Your task to perform on an android device: change timer sound Image 0: 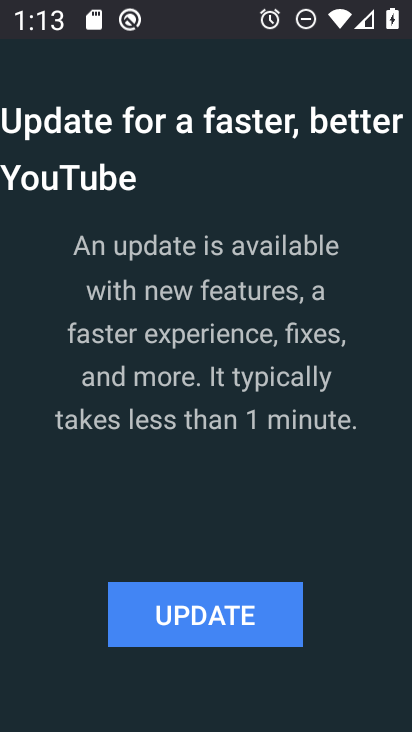
Step 0: press back button
Your task to perform on an android device: change timer sound Image 1: 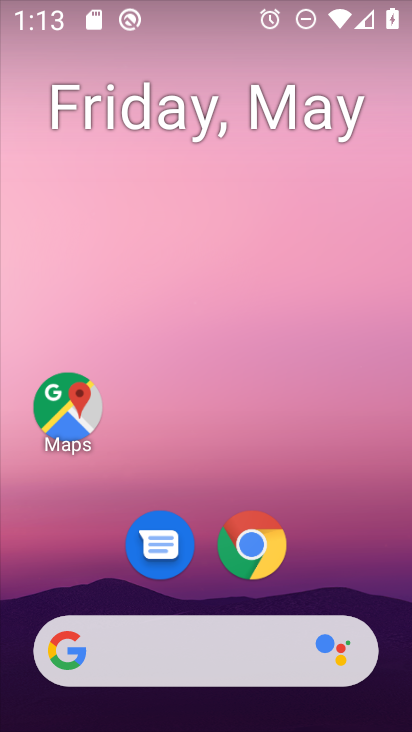
Step 1: drag from (335, 576) to (309, 164)
Your task to perform on an android device: change timer sound Image 2: 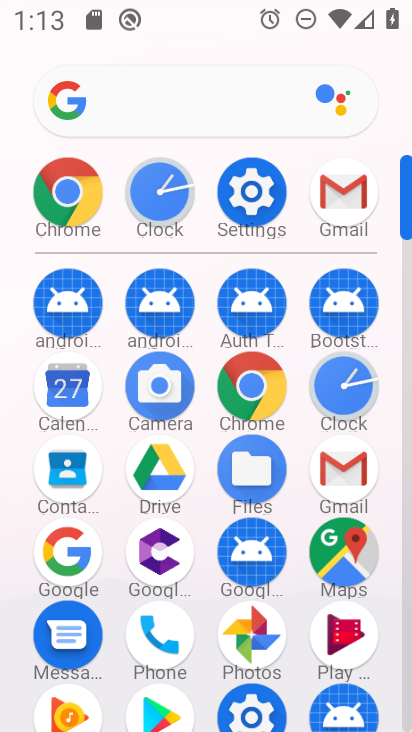
Step 2: click (349, 385)
Your task to perform on an android device: change timer sound Image 3: 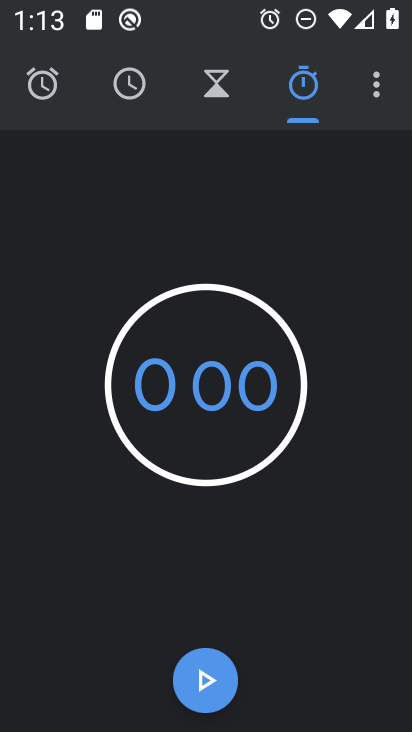
Step 3: click (362, 88)
Your task to perform on an android device: change timer sound Image 4: 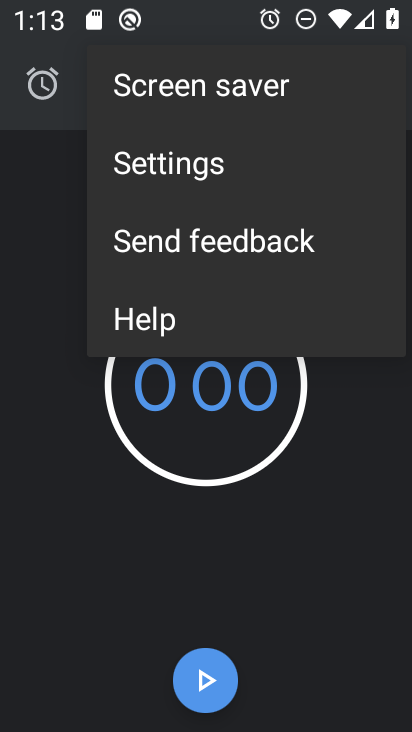
Step 4: click (226, 185)
Your task to perform on an android device: change timer sound Image 5: 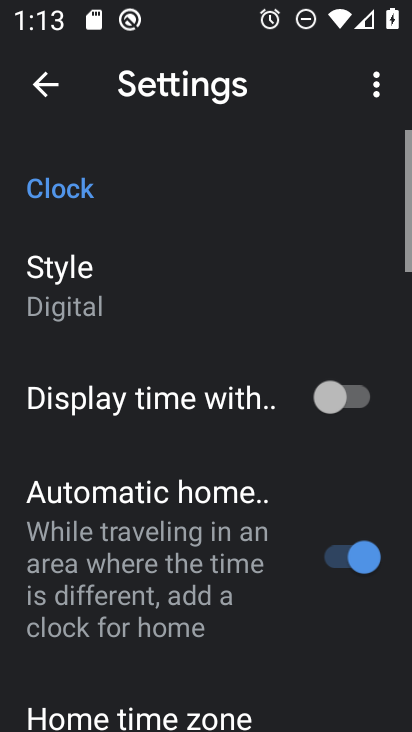
Step 5: drag from (200, 581) to (213, 138)
Your task to perform on an android device: change timer sound Image 6: 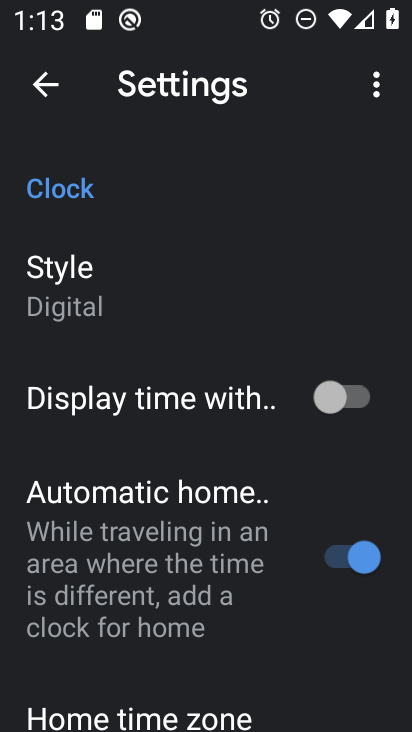
Step 6: drag from (203, 629) to (203, 277)
Your task to perform on an android device: change timer sound Image 7: 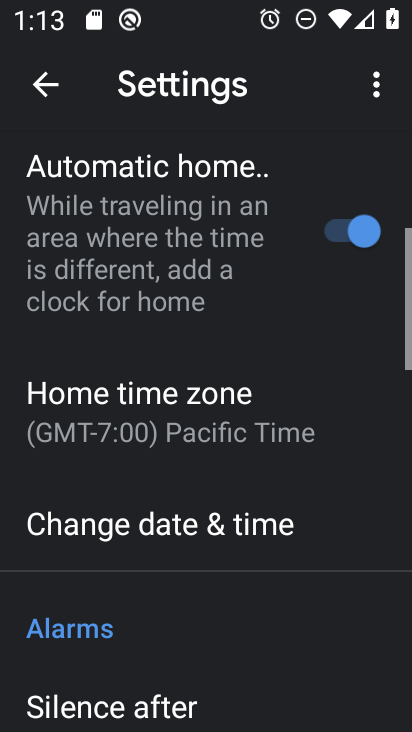
Step 7: drag from (236, 572) to (262, 263)
Your task to perform on an android device: change timer sound Image 8: 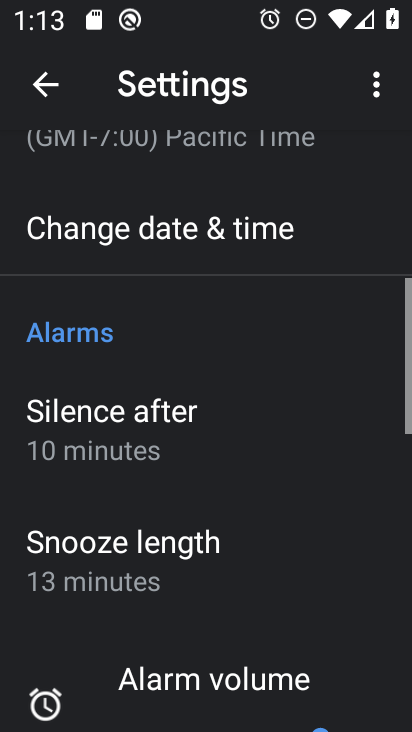
Step 8: drag from (261, 581) to (247, 237)
Your task to perform on an android device: change timer sound Image 9: 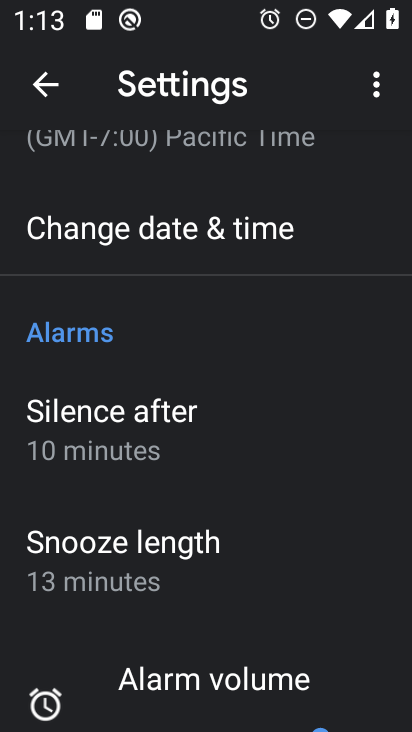
Step 9: drag from (197, 616) to (234, 264)
Your task to perform on an android device: change timer sound Image 10: 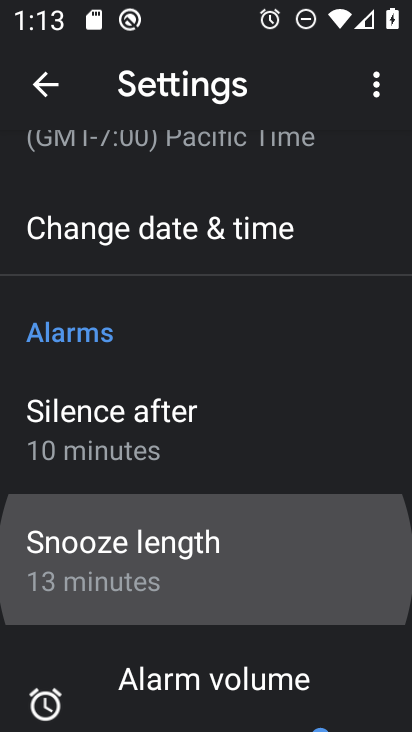
Step 10: drag from (225, 583) to (256, 236)
Your task to perform on an android device: change timer sound Image 11: 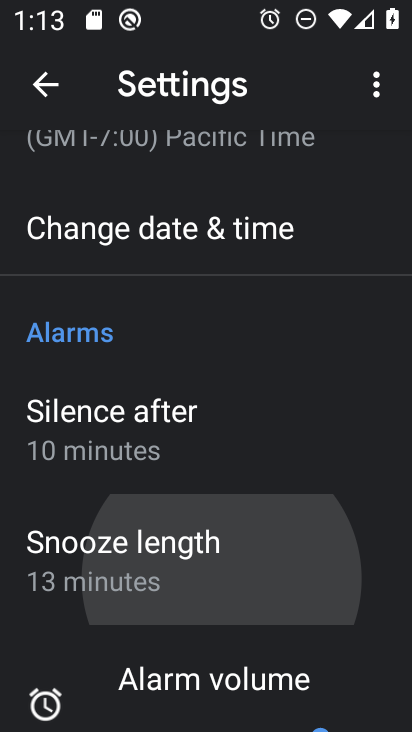
Step 11: drag from (212, 589) to (223, 263)
Your task to perform on an android device: change timer sound Image 12: 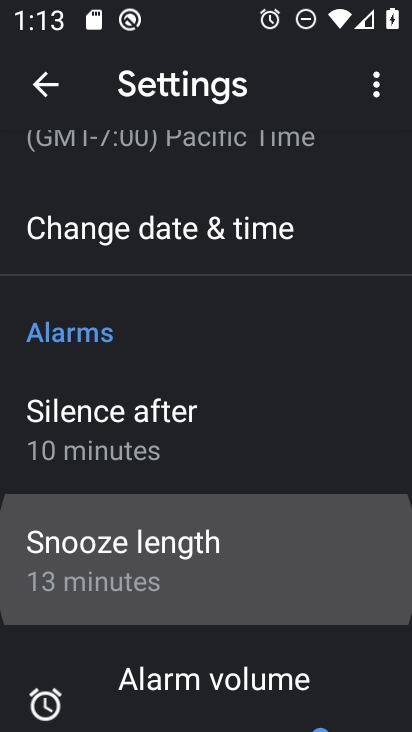
Step 12: drag from (169, 655) to (184, 259)
Your task to perform on an android device: change timer sound Image 13: 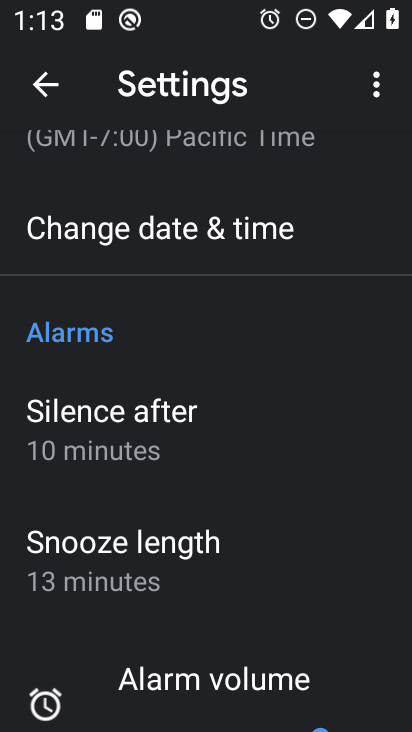
Step 13: drag from (139, 594) to (169, 223)
Your task to perform on an android device: change timer sound Image 14: 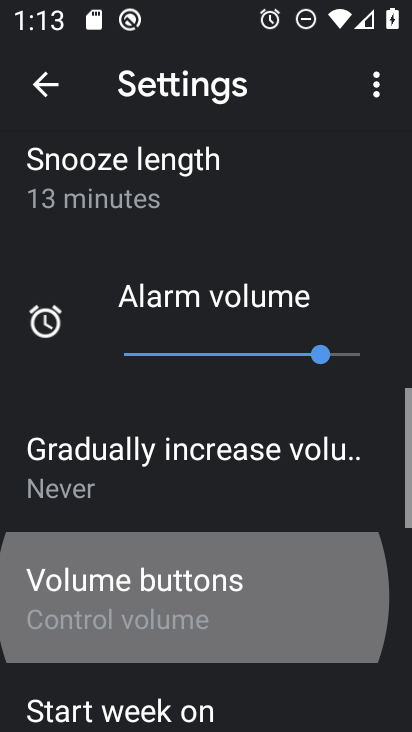
Step 14: drag from (135, 597) to (182, 226)
Your task to perform on an android device: change timer sound Image 15: 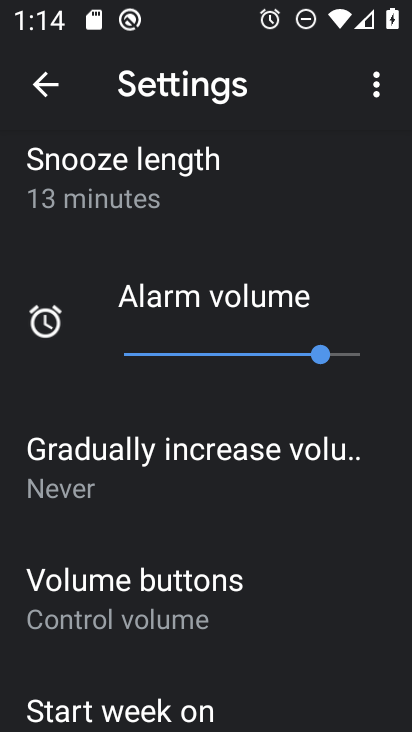
Step 15: drag from (240, 607) to (269, 209)
Your task to perform on an android device: change timer sound Image 16: 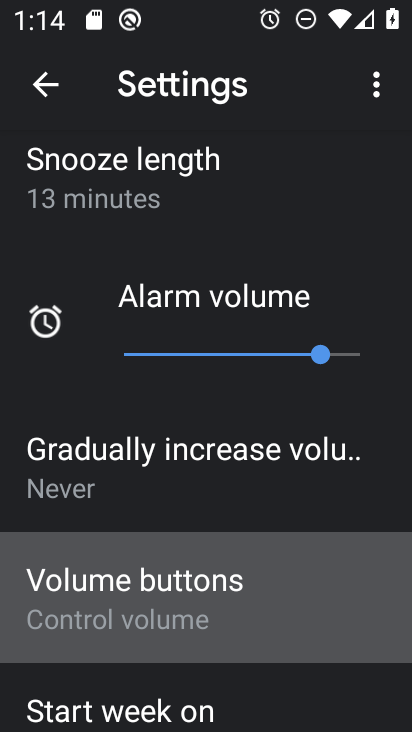
Step 16: click (185, 174)
Your task to perform on an android device: change timer sound Image 17: 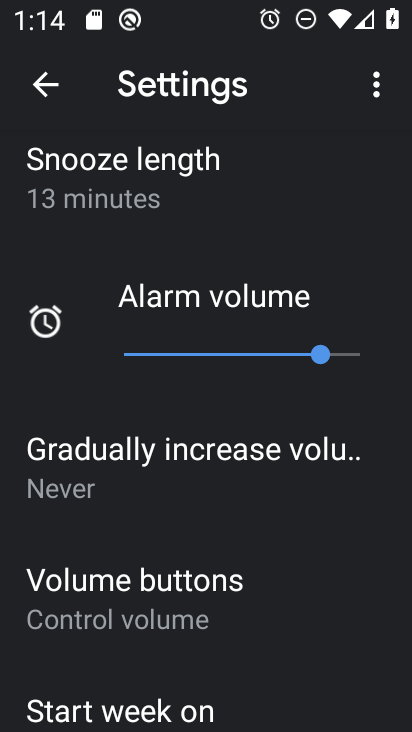
Step 17: drag from (150, 497) to (204, 132)
Your task to perform on an android device: change timer sound Image 18: 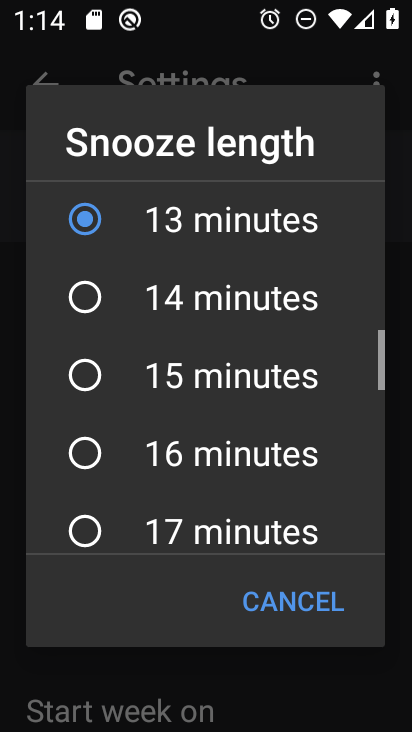
Step 18: drag from (173, 578) to (210, 189)
Your task to perform on an android device: change timer sound Image 19: 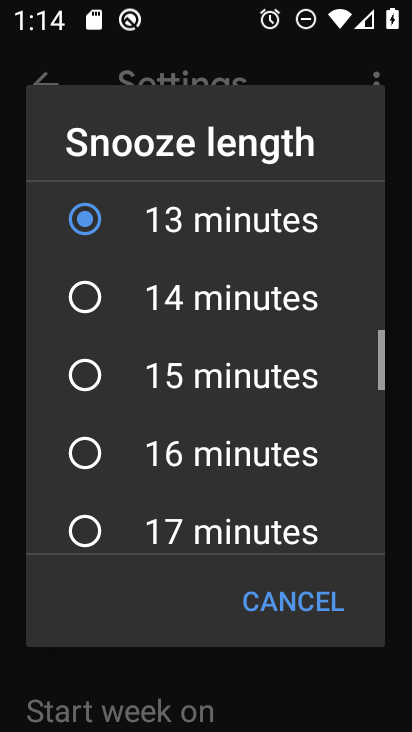
Step 19: drag from (157, 620) to (200, 220)
Your task to perform on an android device: change timer sound Image 20: 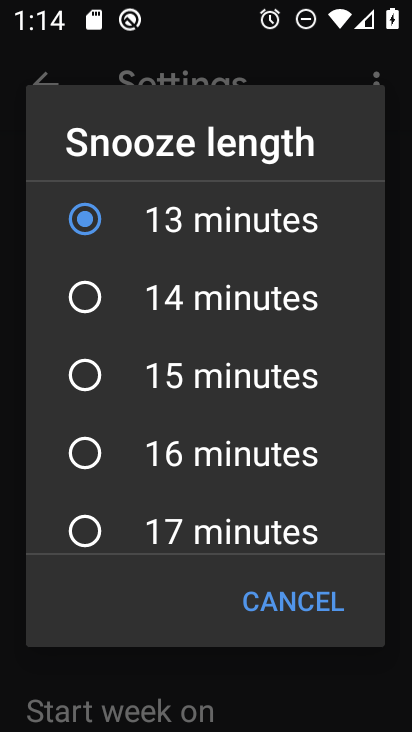
Step 20: click (320, 606)
Your task to perform on an android device: change timer sound Image 21: 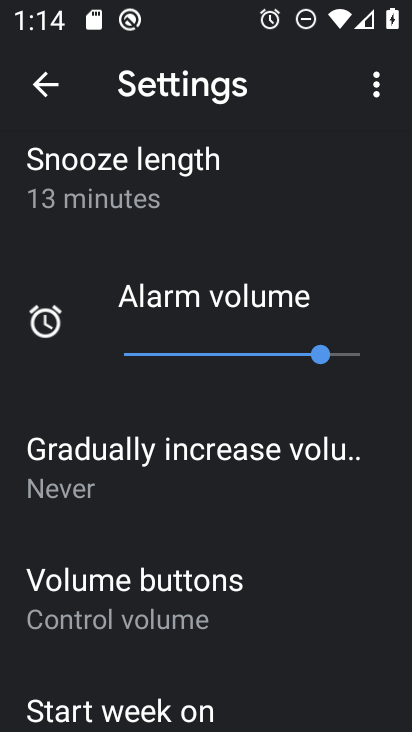
Step 21: drag from (240, 193) to (260, 452)
Your task to perform on an android device: change timer sound Image 22: 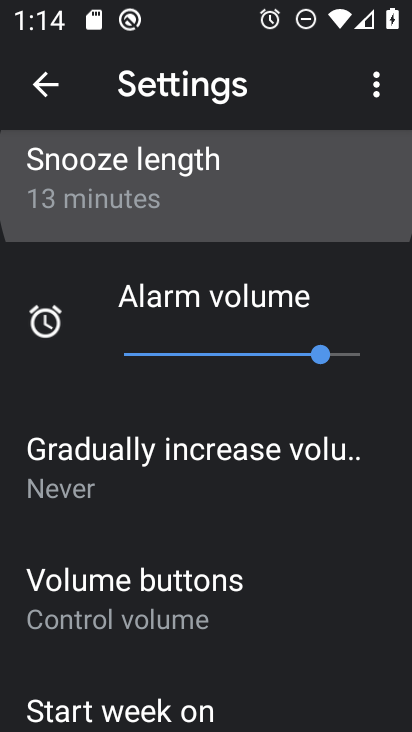
Step 22: drag from (263, 222) to (244, 514)
Your task to perform on an android device: change timer sound Image 23: 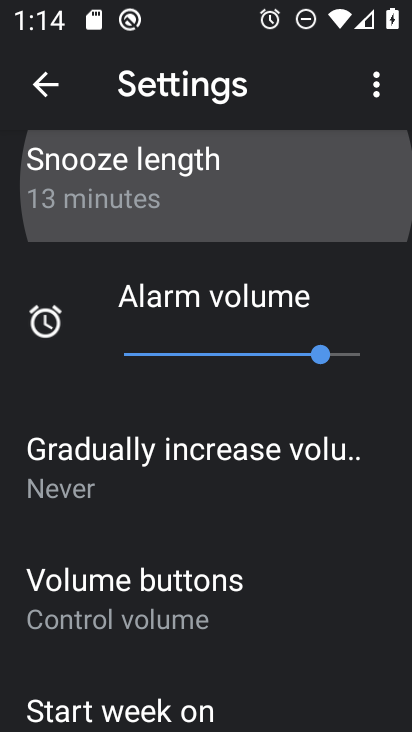
Step 23: drag from (217, 257) to (191, 556)
Your task to perform on an android device: change timer sound Image 24: 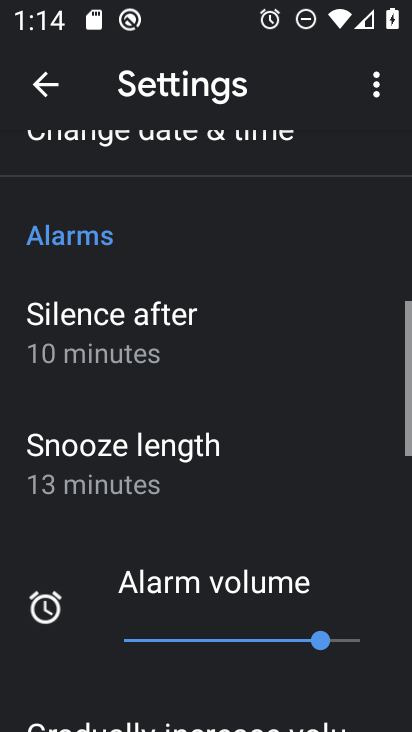
Step 24: drag from (146, 310) to (141, 608)
Your task to perform on an android device: change timer sound Image 25: 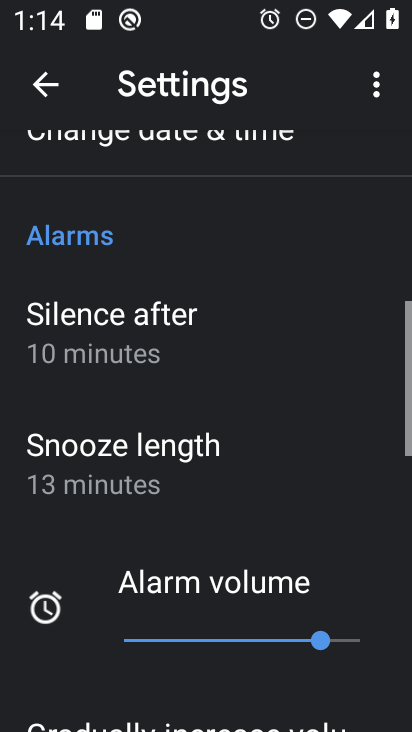
Step 25: drag from (135, 302) to (120, 562)
Your task to perform on an android device: change timer sound Image 26: 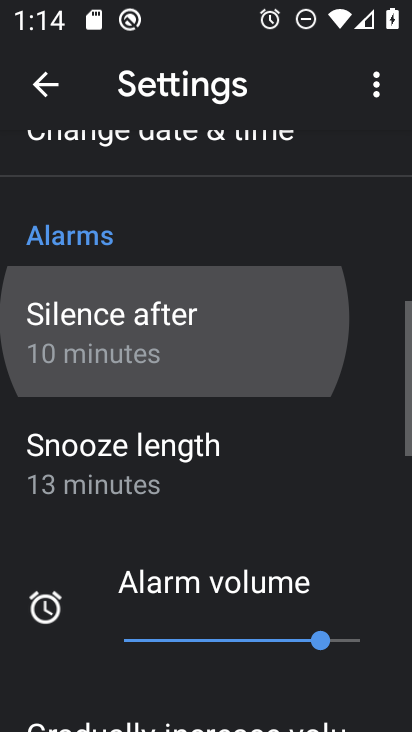
Step 26: drag from (101, 345) to (118, 558)
Your task to perform on an android device: change timer sound Image 27: 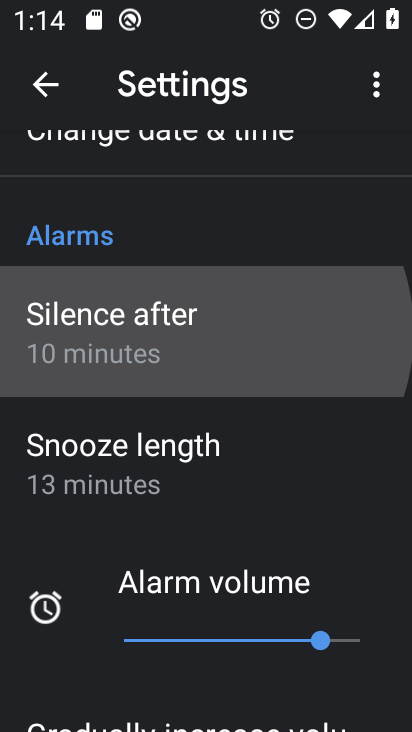
Step 27: drag from (116, 340) to (137, 569)
Your task to perform on an android device: change timer sound Image 28: 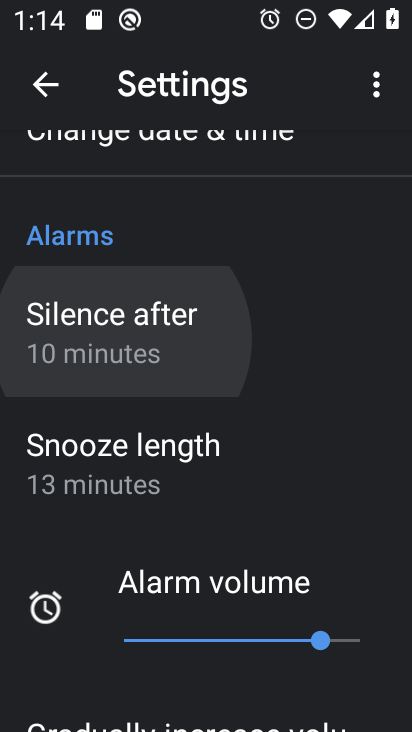
Step 28: drag from (175, 281) to (191, 564)
Your task to perform on an android device: change timer sound Image 29: 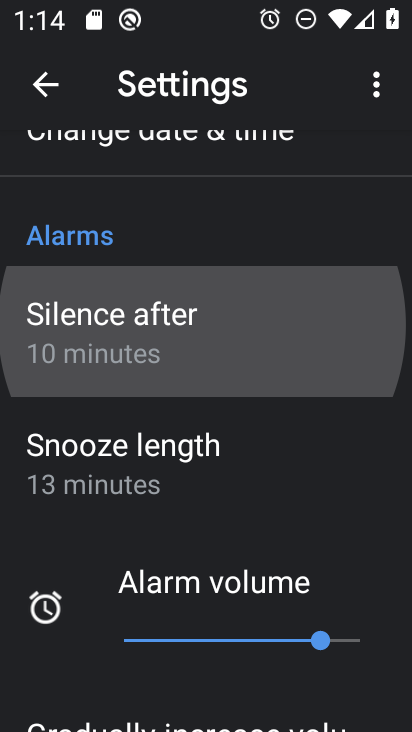
Step 29: drag from (184, 278) to (213, 548)
Your task to perform on an android device: change timer sound Image 30: 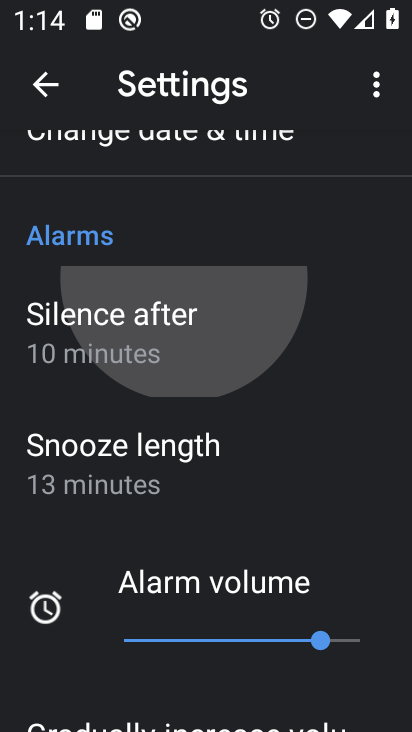
Step 30: drag from (172, 280) to (171, 575)
Your task to perform on an android device: change timer sound Image 31: 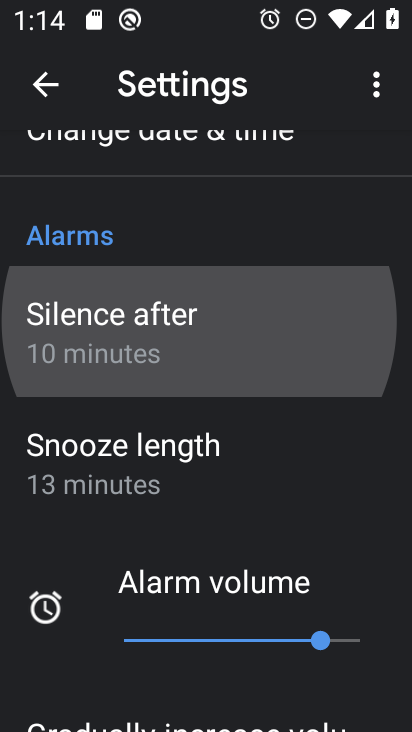
Step 31: drag from (122, 245) to (159, 543)
Your task to perform on an android device: change timer sound Image 32: 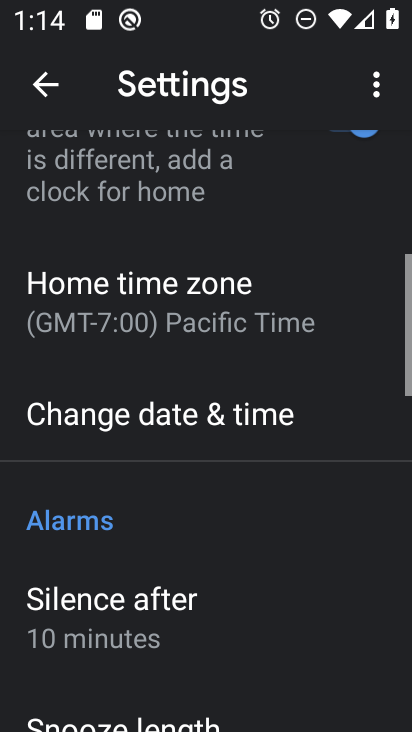
Step 32: drag from (180, 284) to (243, 536)
Your task to perform on an android device: change timer sound Image 33: 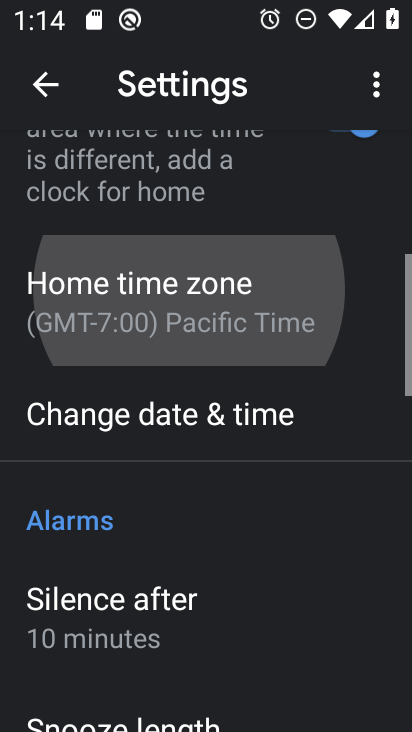
Step 33: drag from (272, 282) to (311, 585)
Your task to perform on an android device: change timer sound Image 34: 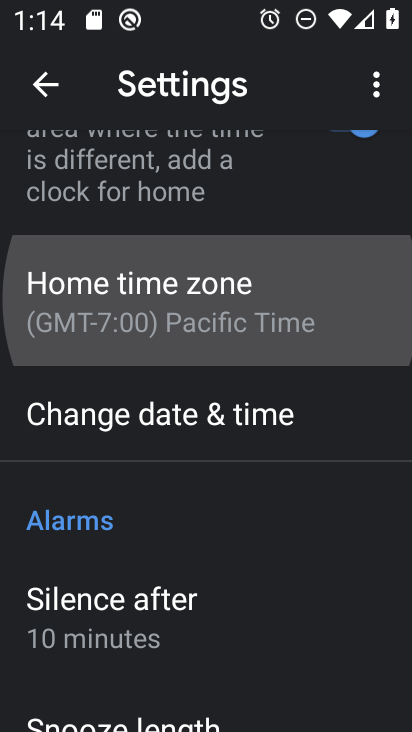
Step 34: drag from (260, 294) to (258, 536)
Your task to perform on an android device: change timer sound Image 35: 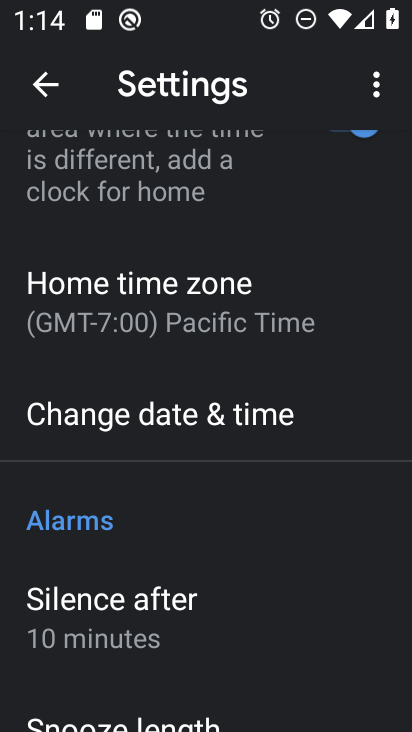
Step 35: drag from (230, 628) to (203, 343)
Your task to perform on an android device: change timer sound Image 36: 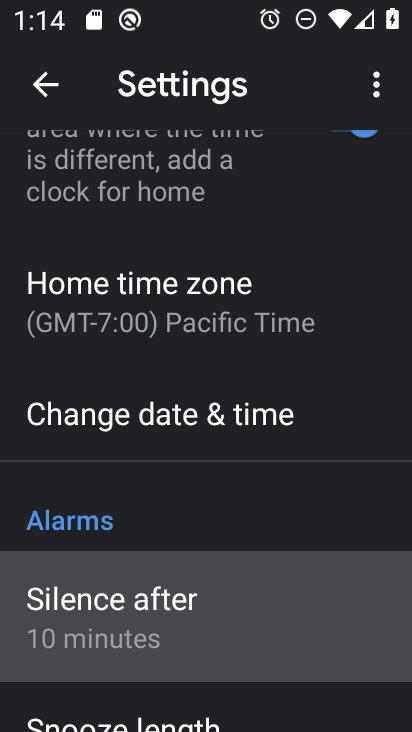
Step 36: drag from (214, 590) to (253, 303)
Your task to perform on an android device: change timer sound Image 37: 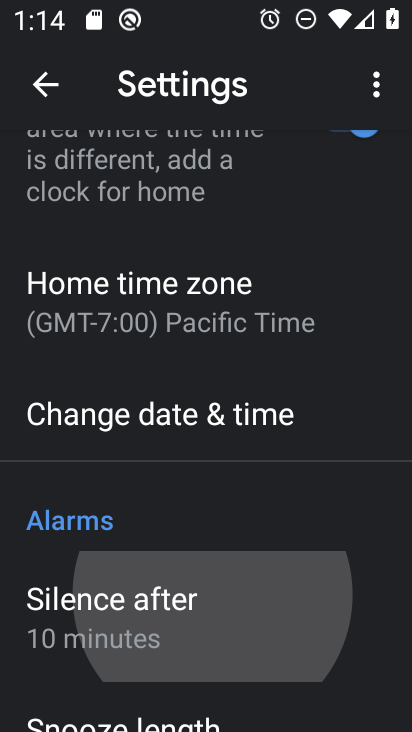
Step 37: drag from (255, 514) to (298, 199)
Your task to perform on an android device: change timer sound Image 38: 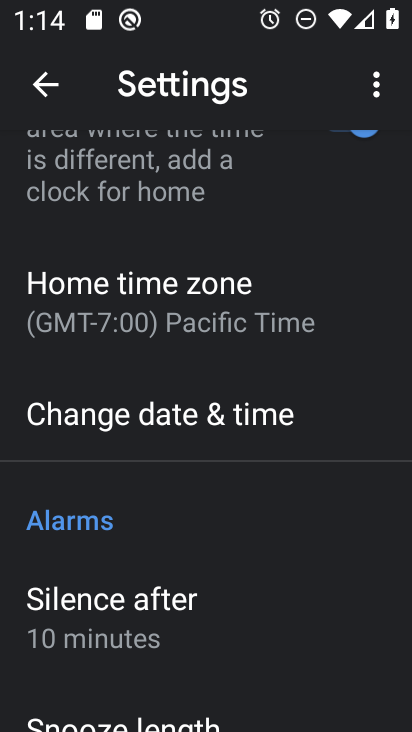
Step 38: drag from (296, 500) to (326, 157)
Your task to perform on an android device: change timer sound Image 39: 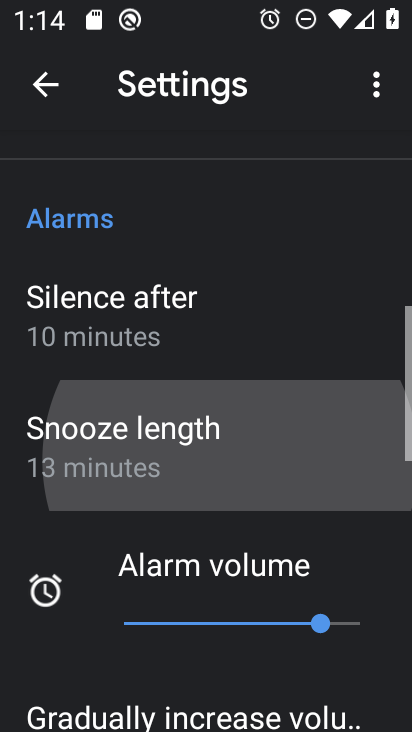
Step 39: drag from (182, 441) to (212, 167)
Your task to perform on an android device: change timer sound Image 40: 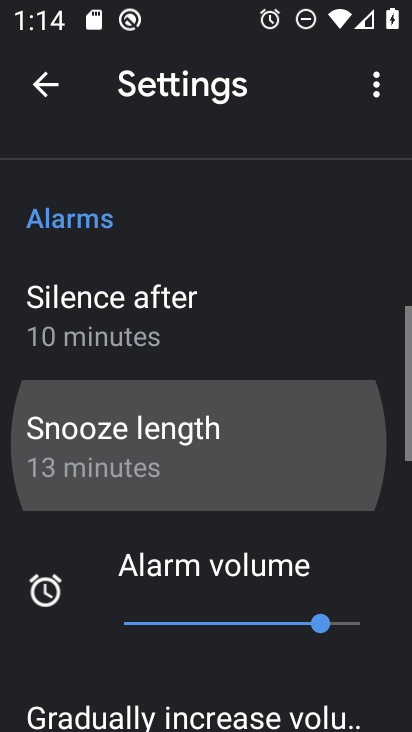
Step 40: drag from (184, 445) to (226, 159)
Your task to perform on an android device: change timer sound Image 41: 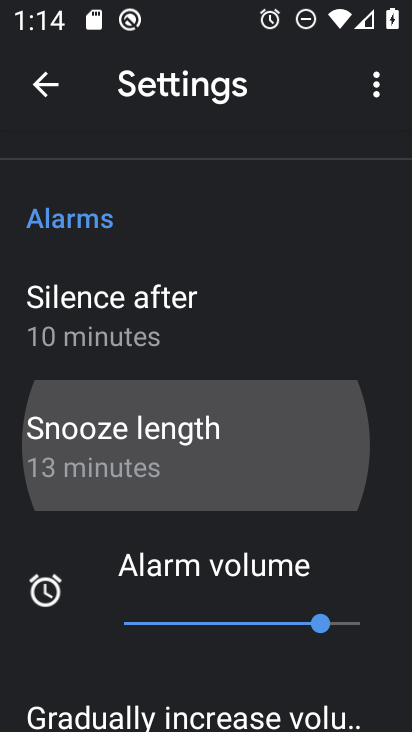
Step 41: drag from (181, 500) to (270, 160)
Your task to perform on an android device: change timer sound Image 42: 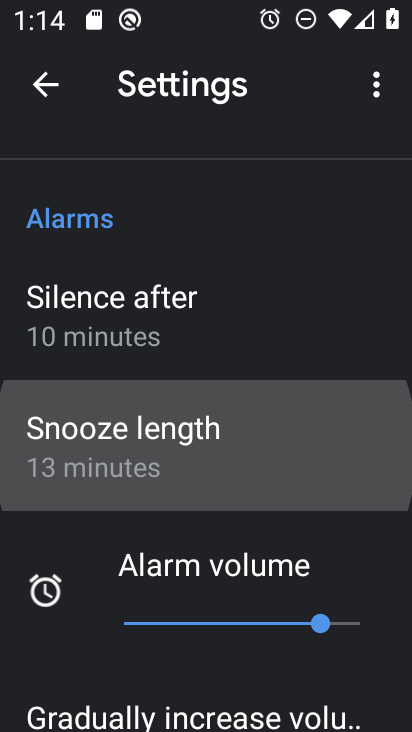
Step 42: drag from (189, 516) to (243, 180)
Your task to perform on an android device: change timer sound Image 43: 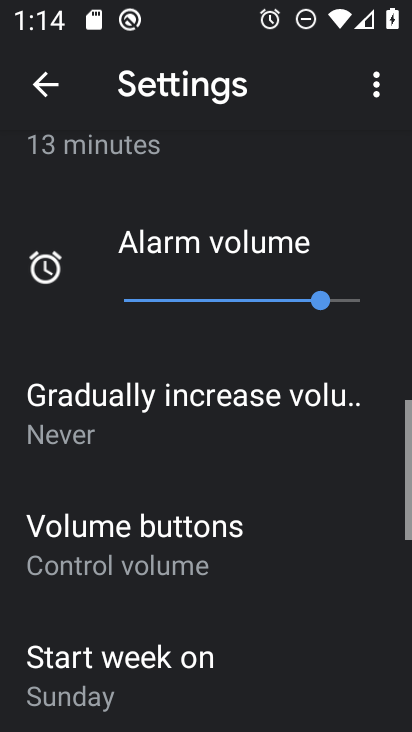
Step 43: drag from (126, 598) to (177, 178)
Your task to perform on an android device: change timer sound Image 44: 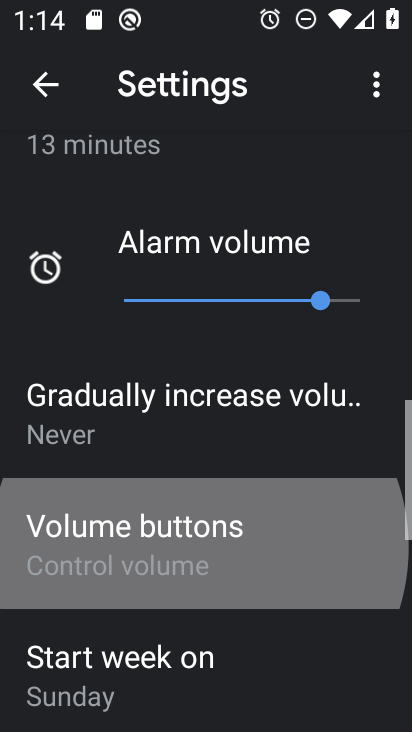
Step 44: drag from (90, 583) to (147, 198)
Your task to perform on an android device: change timer sound Image 45: 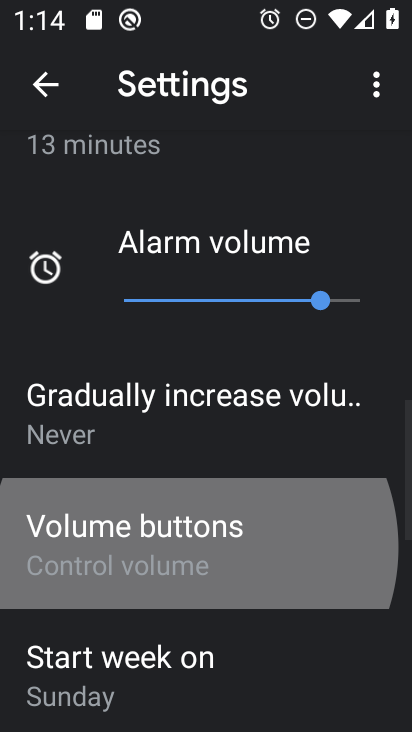
Step 45: drag from (136, 529) to (179, 139)
Your task to perform on an android device: change timer sound Image 46: 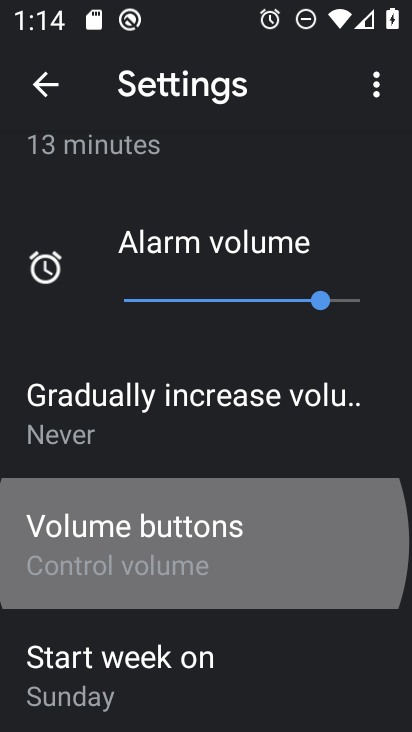
Step 46: drag from (164, 600) to (219, 224)
Your task to perform on an android device: change timer sound Image 47: 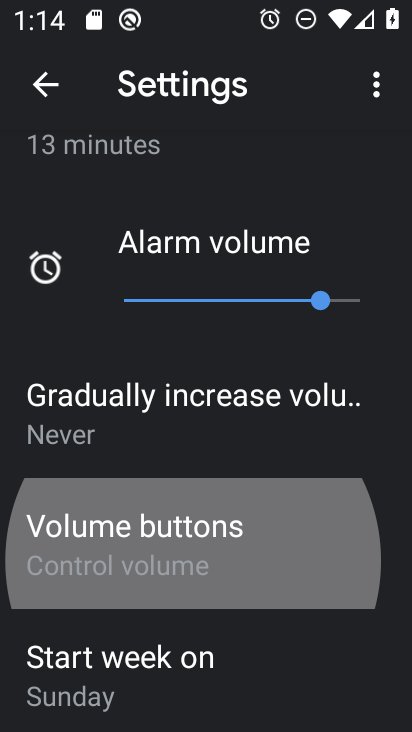
Step 47: drag from (205, 551) to (265, 226)
Your task to perform on an android device: change timer sound Image 48: 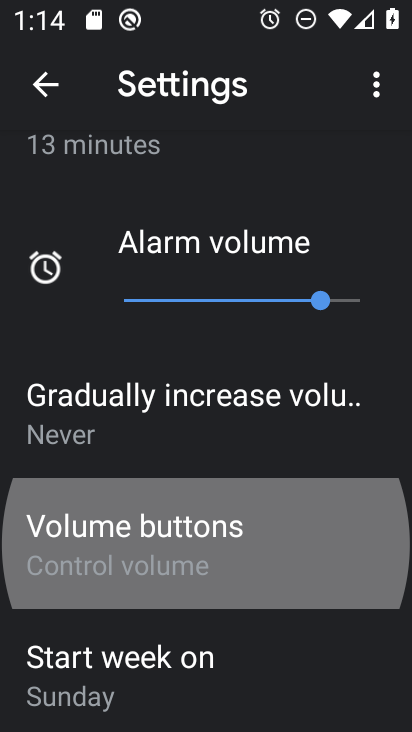
Step 48: drag from (195, 598) to (223, 215)
Your task to perform on an android device: change timer sound Image 49: 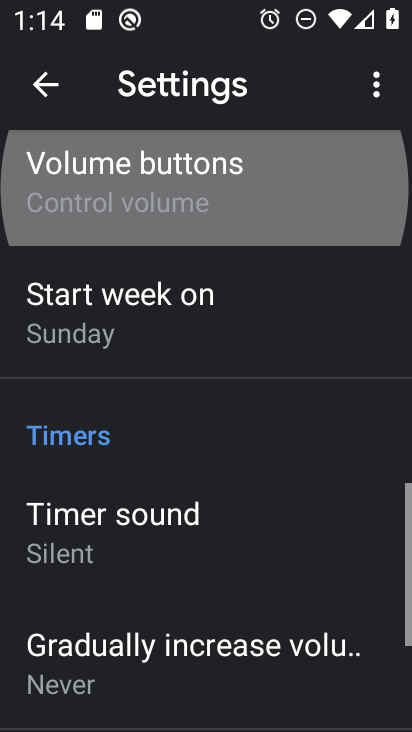
Step 49: drag from (158, 625) to (227, 275)
Your task to perform on an android device: change timer sound Image 50: 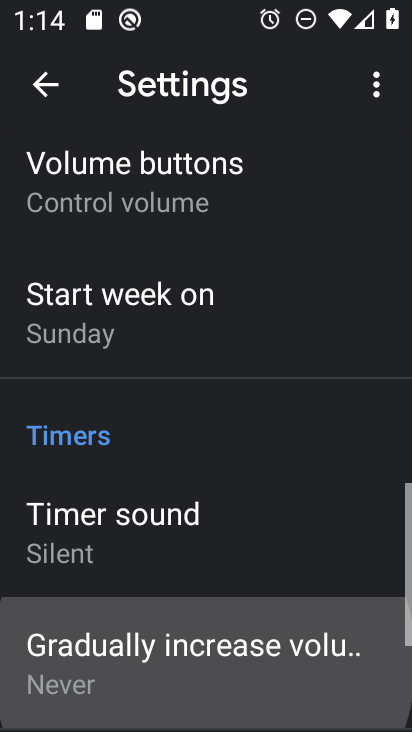
Step 50: drag from (209, 640) to (271, 253)
Your task to perform on an android device: change timer sound Image 51: 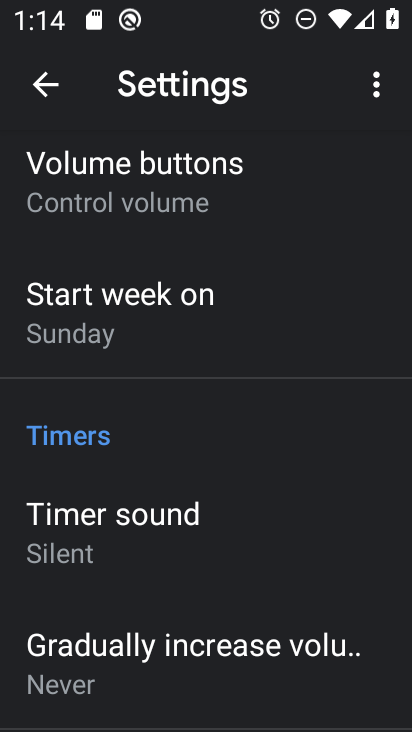
Step 51: click (161, 500)
Your task to perform on an android device: change timer sound Image 52: 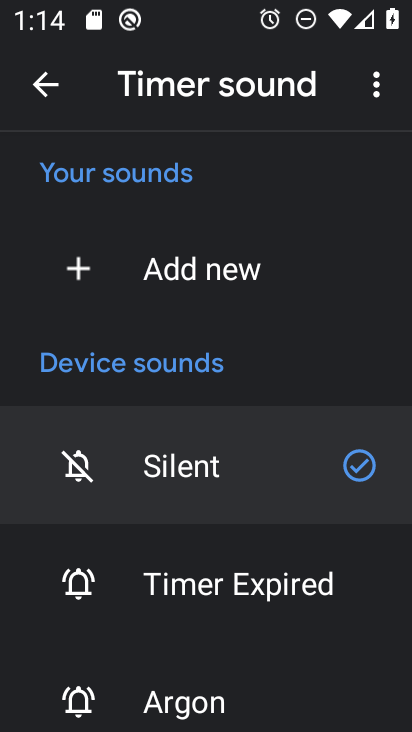
Step 52: click (234, 617)
Your task to perform on an android device: change timer sound Image 53: 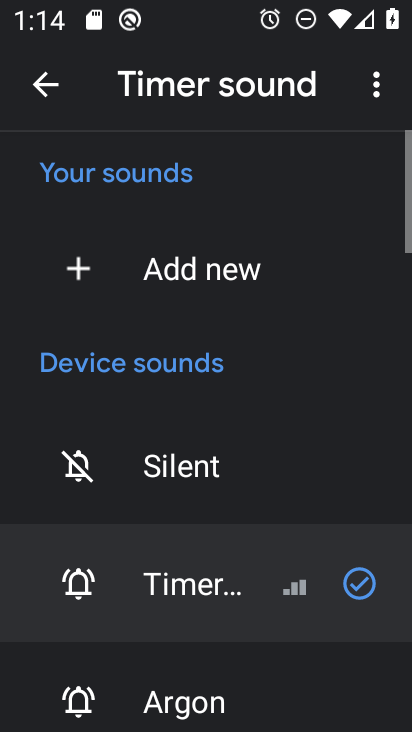
Step 53: task complete